Your task to perform on an android device: open a bookmark in the chrome app Image 0: 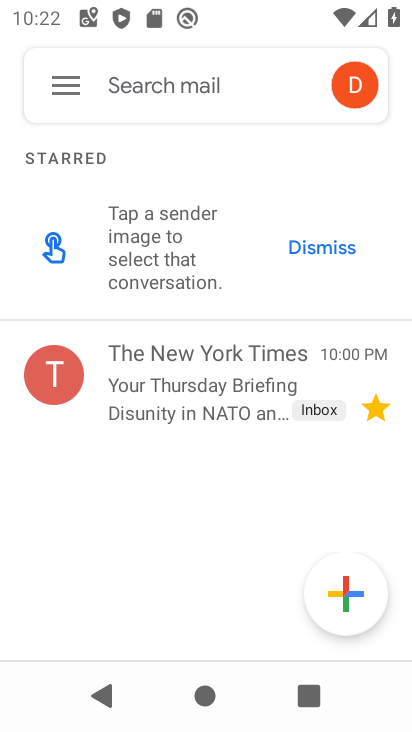
Step 0: press home button
Your task to perform on an android device: open a bookmark in the chrome app Image 1: 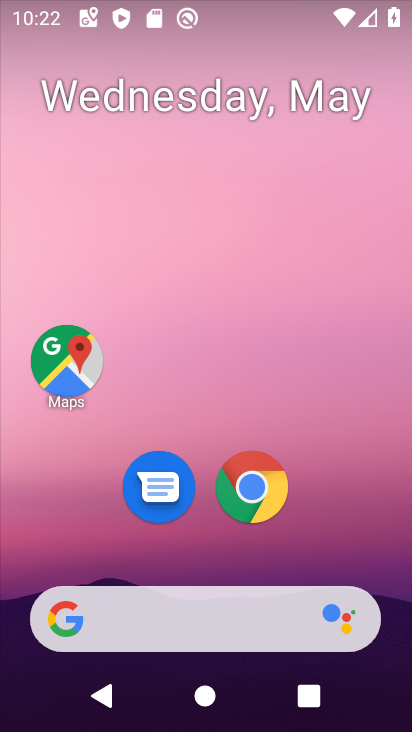
Step 1: drag from (210, 574) to (196, 13)
Your task to perform on an android device: open a bookmark in the chrome app Image 2: 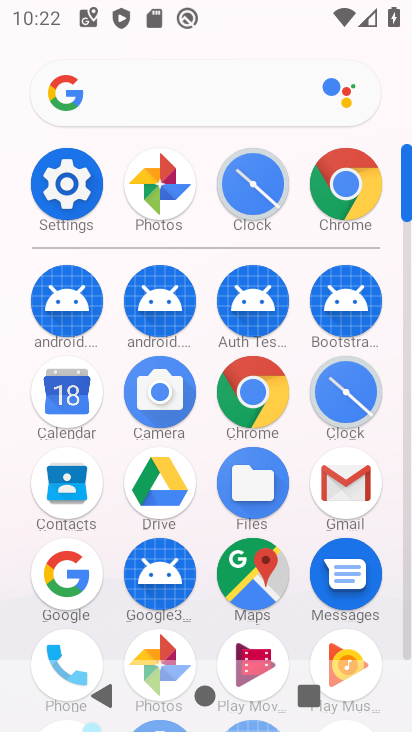
Step 2: click (233, 409)
Your task to perform on an android device: open a bookmark in the chrome app Image 3: 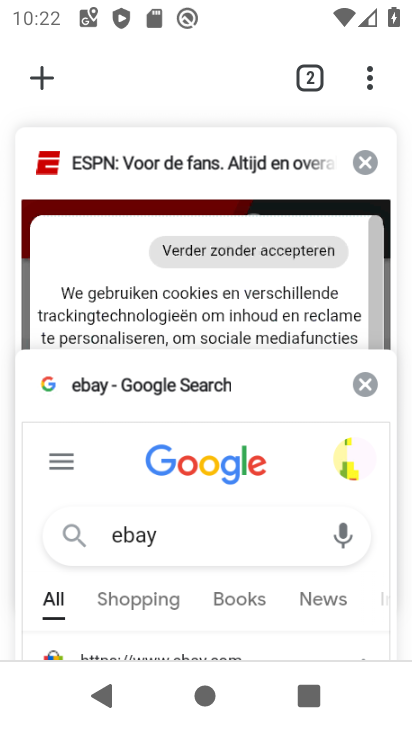
Step 3: click (360, 84)
Your task to perform on an android device: open a bookmark in the chrome app Image 4: 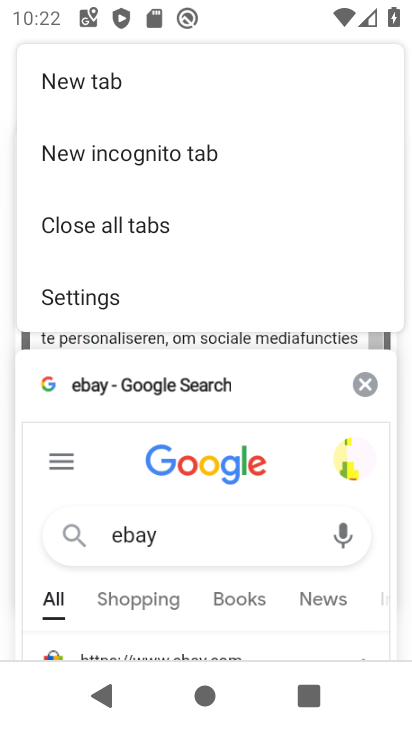
Step 4: click (122, 287)
Your task to perform on an android device: open a bookmark in the chrome app Image 5: 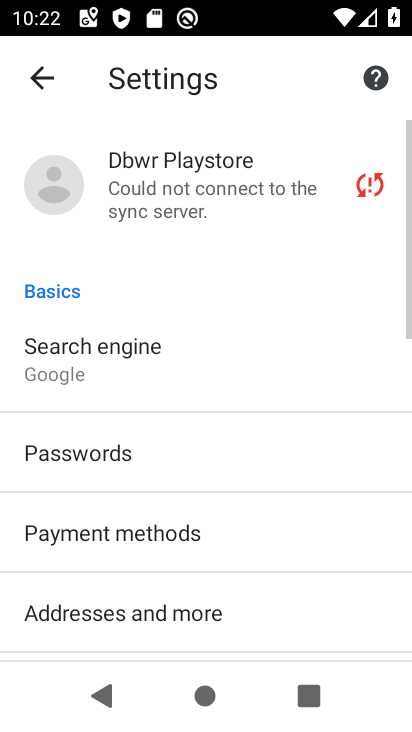
Step 5: drag from (132, 520) to (132, 105)
Your task to perform on an android device: open a bookmark in the chrome app Image 6: 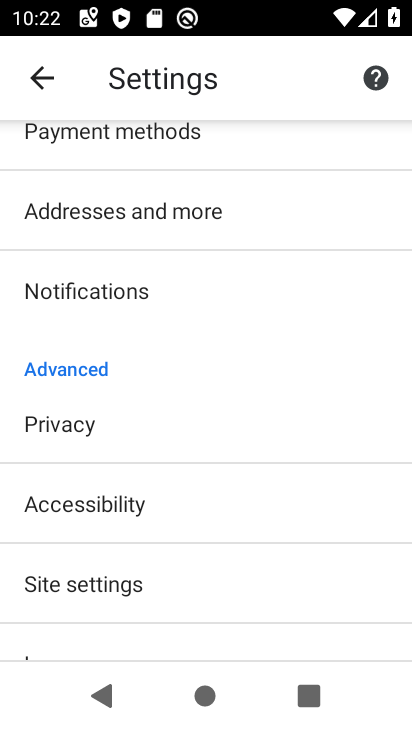
Step 6: drag from (193, 500) to (176, 93)
Your task to perform on an android device: open a bookmark in the chrome app Image 7: 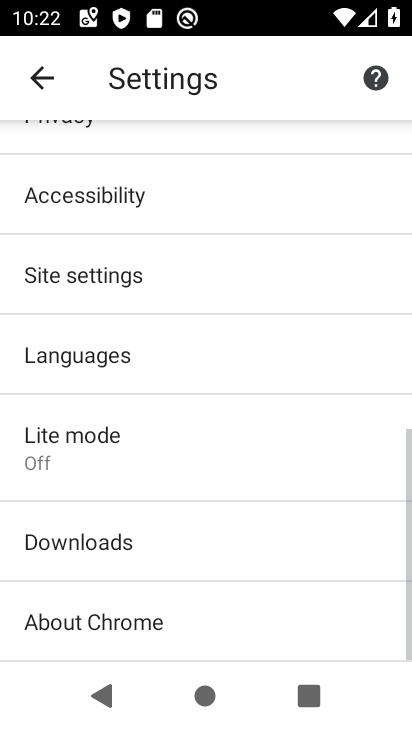
Step 7: drag from (102, 242) to (48, 677)
Your task to perform on an android device: open a bookmark in the chrome app Image 8: 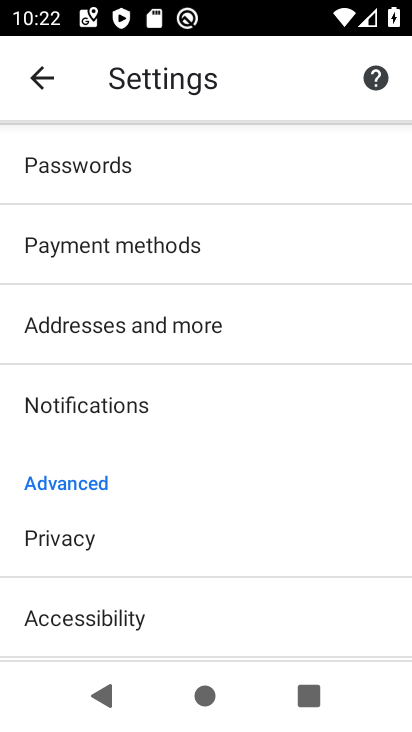
Step 8: drag from (203, 170) to (130, 563)
Your task to perform on an android device: open a bookmark in the chrome app Image 9: 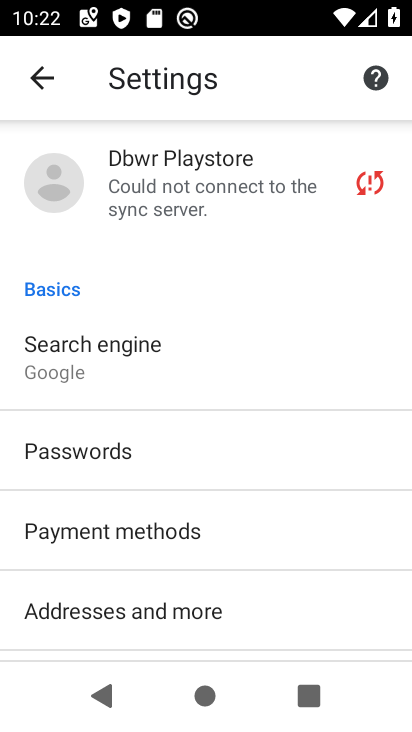
Step 9: click (33, 71)
Your task to perform on an android device: open a bookmark in the chrome app Image 10: 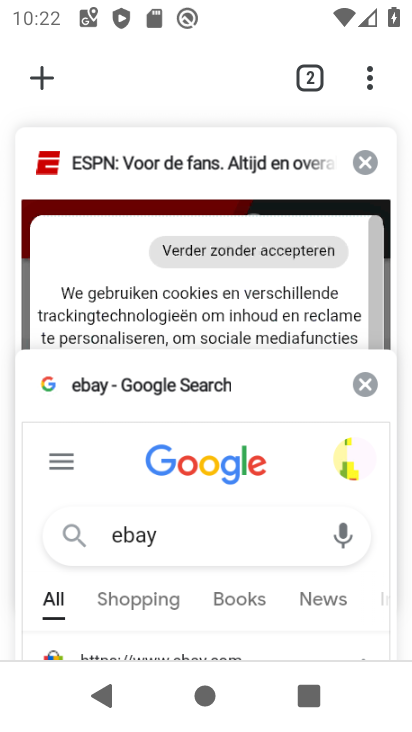
Step 10: task complete